Your task to perform on an android device: change your default location settings in chrome Image 0: 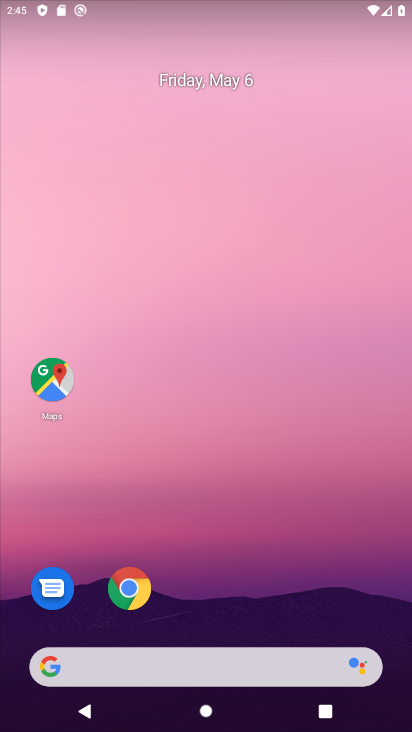
Step 0: click (117, 585)
Your task to perform on an android device: change your default location settings in chrome Image 1: 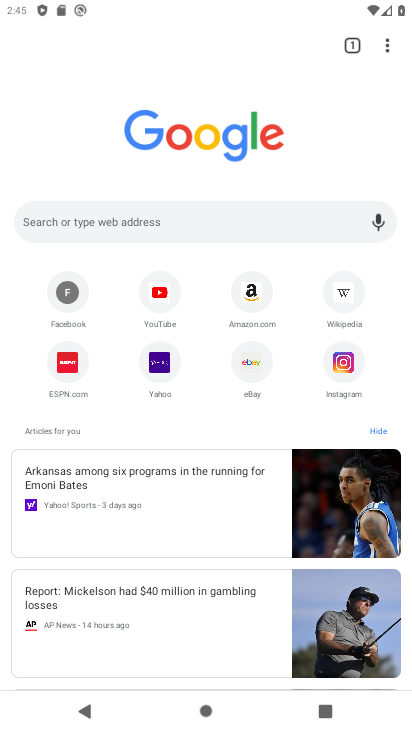
Step 1: click (389, 39)
Your task to perform on an android device: change your default location settings in chrome Image 2: 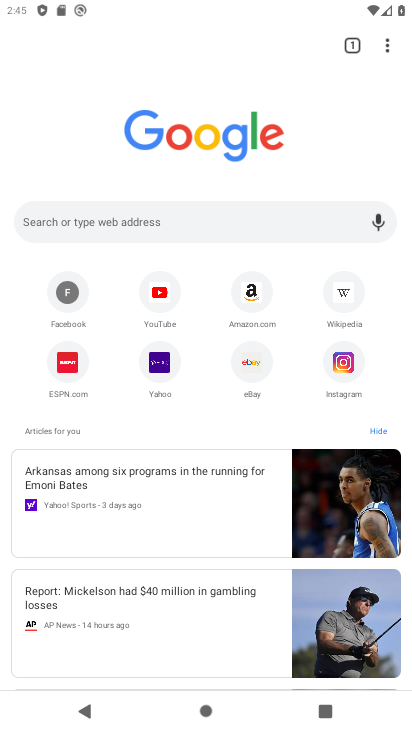
Step 2: click (389, 42)
Your task to perform on an android device: change your default location settings in chrome Image 3: 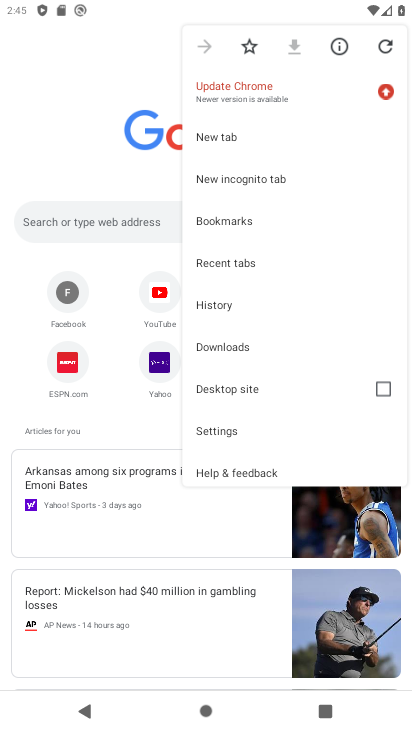
Step 3: click (238, 429)
Your task to perform on an android device: change your default location settings in chrome Image 4: 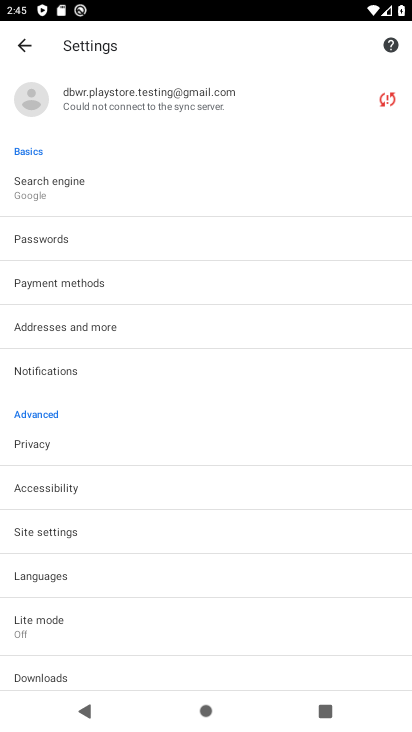
Step 4: drag from (88, 659) to (151, 261)
Your task to perform on an android device: change your default location settings in chrome Image 5: 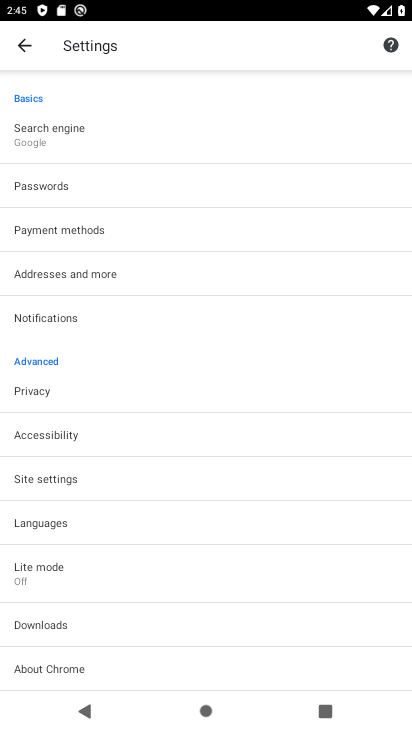
Step 5: click (47, 470)
Your task to perform on an android device: change your default location settings in chrome Image 6: 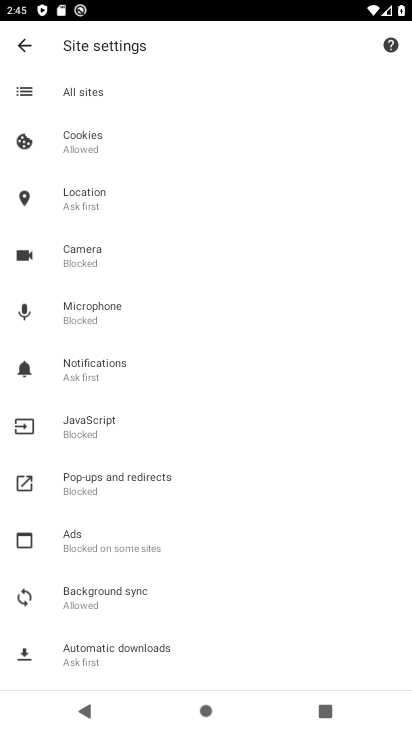
Step 6: click (111, 204)
Your task to perform on an android device: change your default location settings in chrome Image 7: 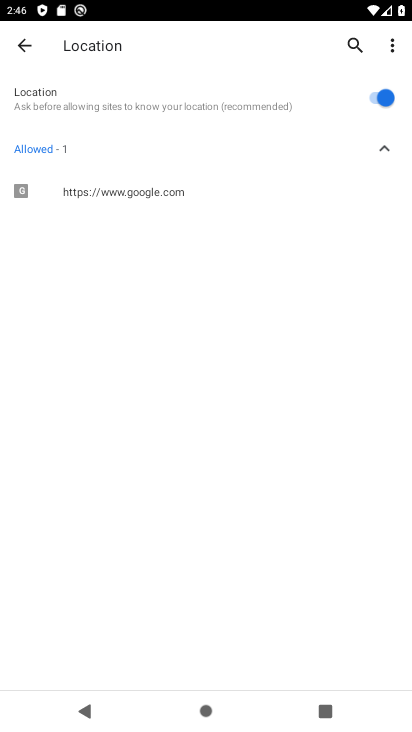
Step 7: click (374, 94)
Your task to perform on an android device: change your default location settings in chrome Image 8: 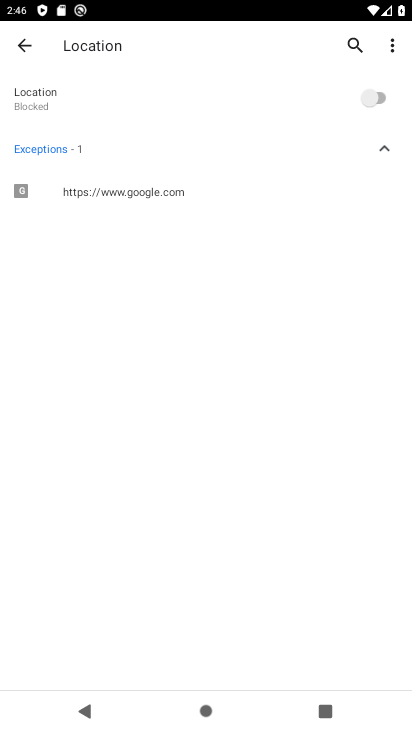
Step 8: task complete